Your task to perform on an android device: turn on javascript in the chrome app Image 0: 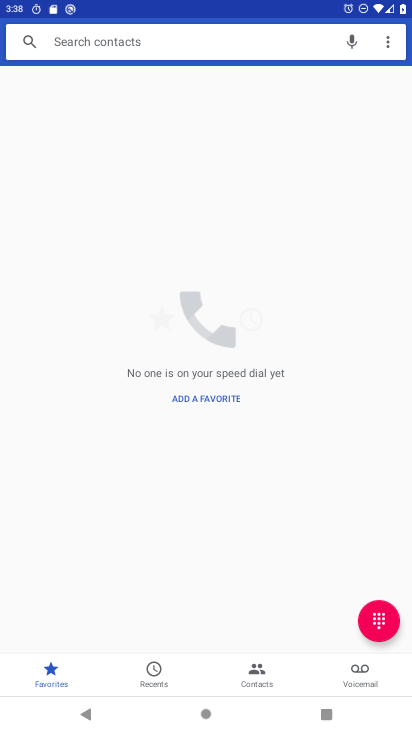
Step 0: press home button
Your task to perform on an android device: turn on javascript in the chrome app Image 1: 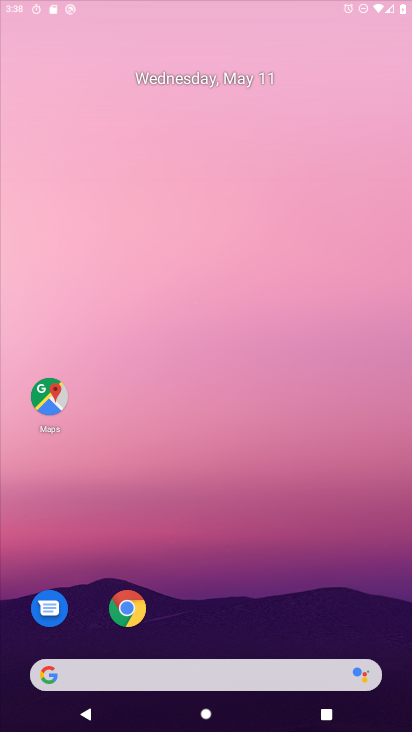
Step 1: drag from (123, 650) to (148, 143)
Your task to perform on an android device: turn on javascript in the chrome app Image 2: 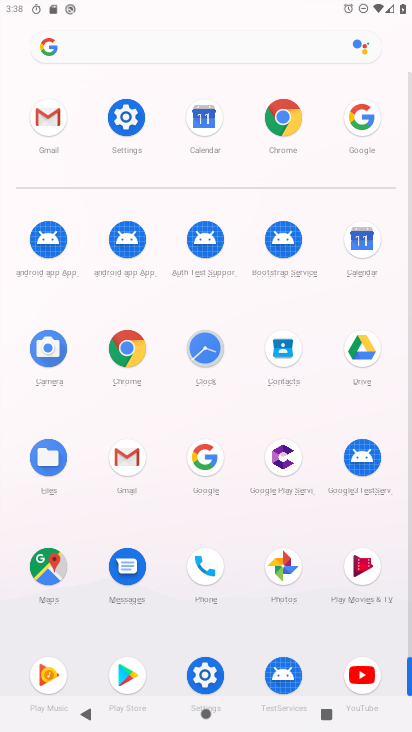
Step 2: click (289, 135)
Your task to perform on an android device: turn on javascript in the chrome app Image 3: 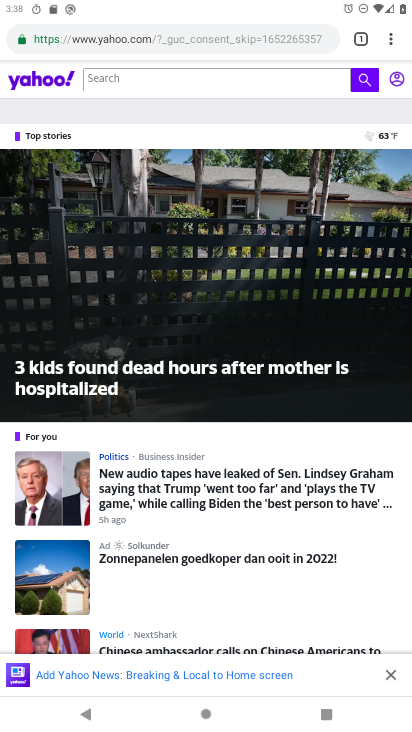
Step 3: click (395, 51)
Your task to perform on an android device: turn on javascript in the chrome app Image 4: 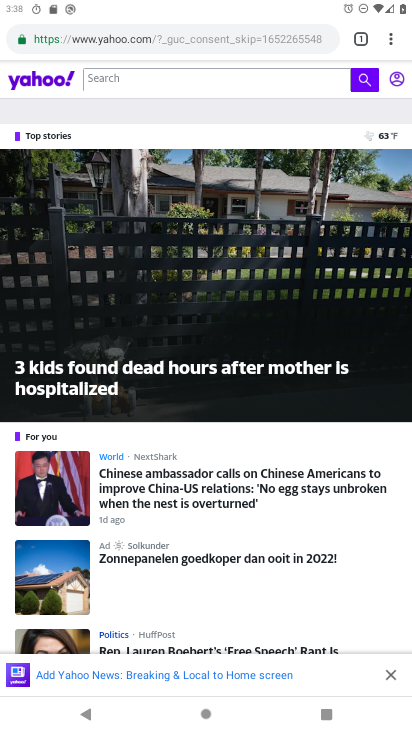
Step 4: click (387, 32)
Your task to perform on an android device: turn on javascript in the chrome app Image 5: 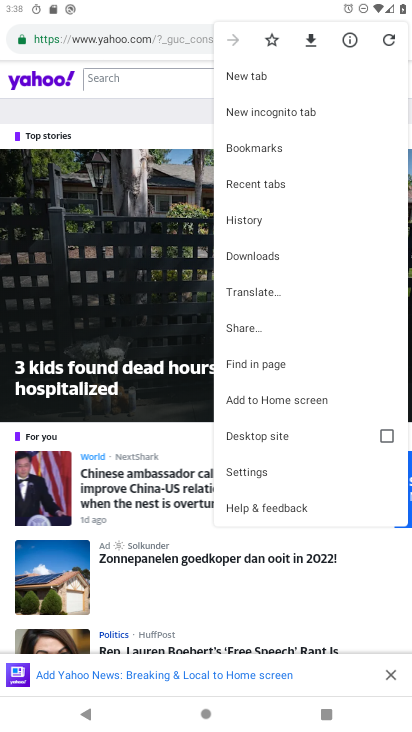
Step 5: drag from (278, 418) to (324, 222)
Your task to perform on an android device: turn on javascript in the chrome app Image 6: 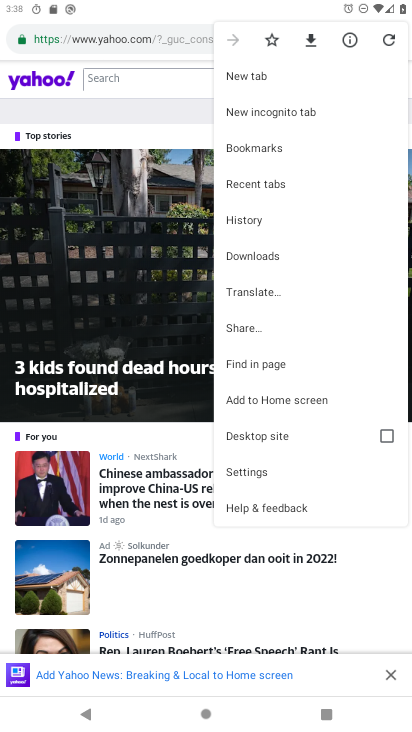
Step 6: click (280, 470)
Your task to perform on an android device: turn on javascript in the chrome app Image 7: 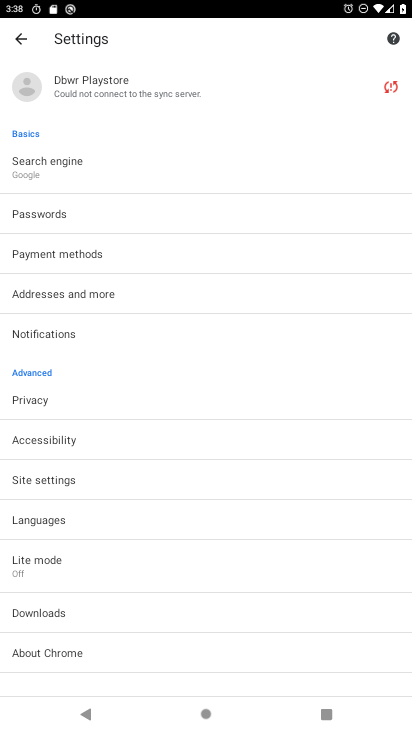
Step 7: click (60, 476)
Your task to perform on an android device: turn on javascript in the chrome app Image 8: 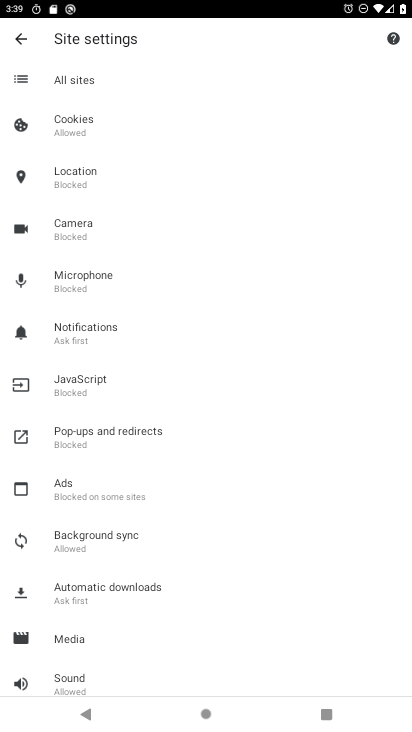
Step 8: drag from (117, 424) to (147, 290)
Your task to perform on an android device: turn on javascript in the chrome app Image 9: 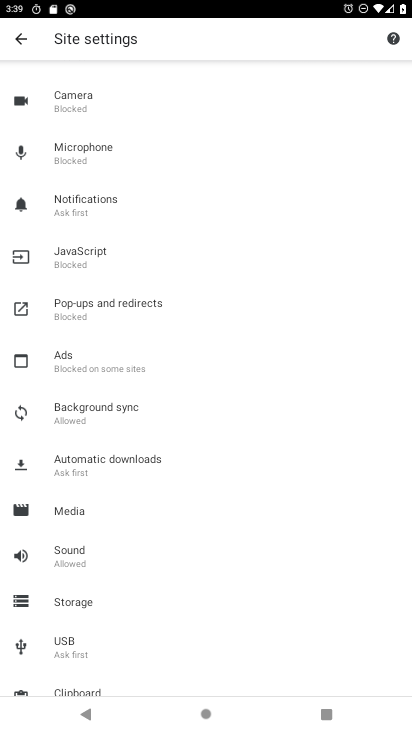
Step 9: click (100, 262)
Your task to perform on an android device: turn on javascript in the chrome app Image 10: 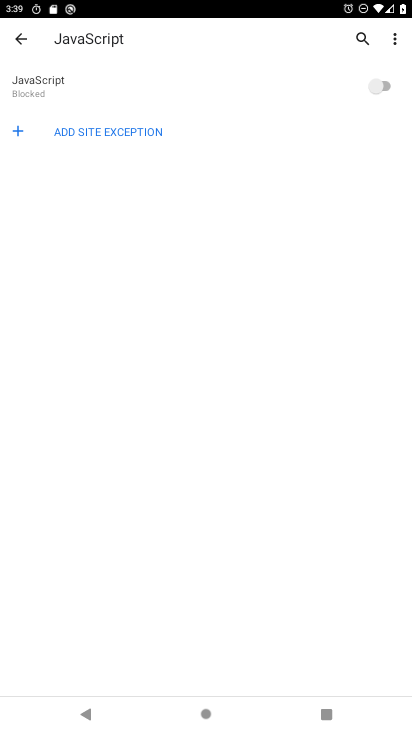
Step 10: click (131, 91)
Your task to perform on an android device: turn on javascript in the chrome app Image 11: 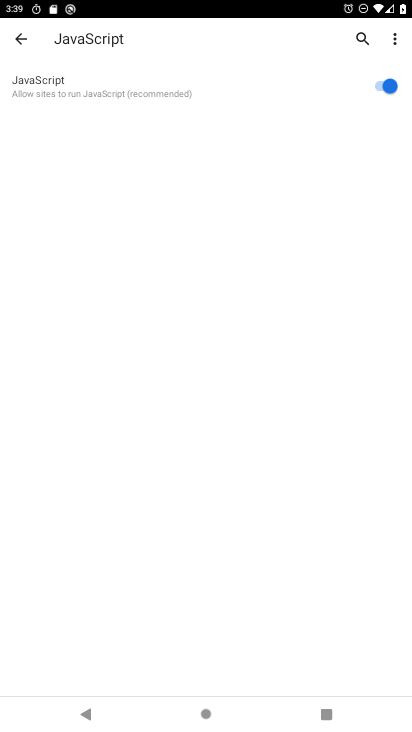
Step 11: task complete